Your task to perform on an android device: Search for Italian restaurants on Maps Image 0: 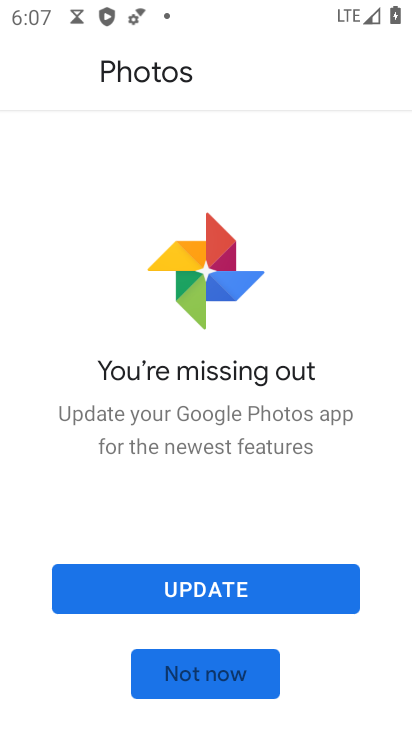
Step 0: press home button
Your task to perform on an android device: Search for Italian restaurants on Maps Image 1: 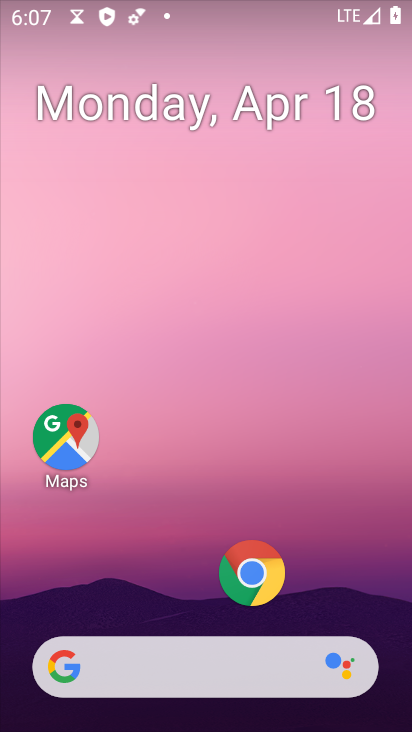
Step 1: click (67, 445)
Your task to perform on an android device: Search for Italian restaurants on Maps Image 2: 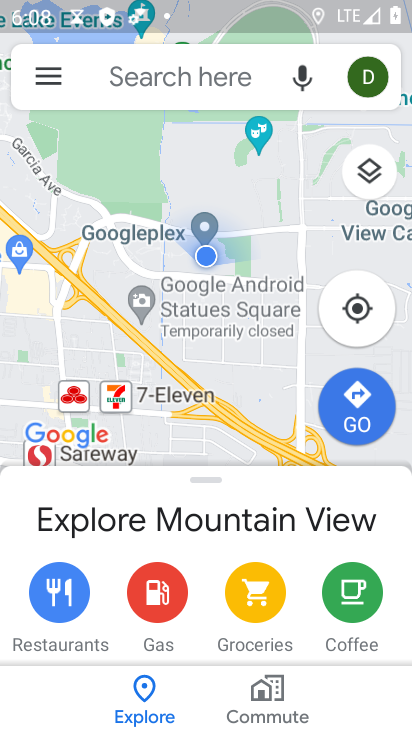
Step 2: click (208, 83)
Your task to perform on an android device: Search for Italian restaurants on Maps Image 3: 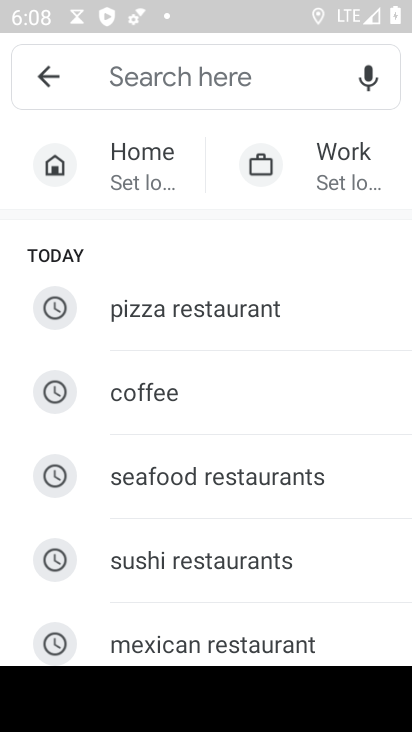
Step 3: type "italian restaurants"
Your task to perform on an android device: Search for Italian restaurants on Maps Image 4: 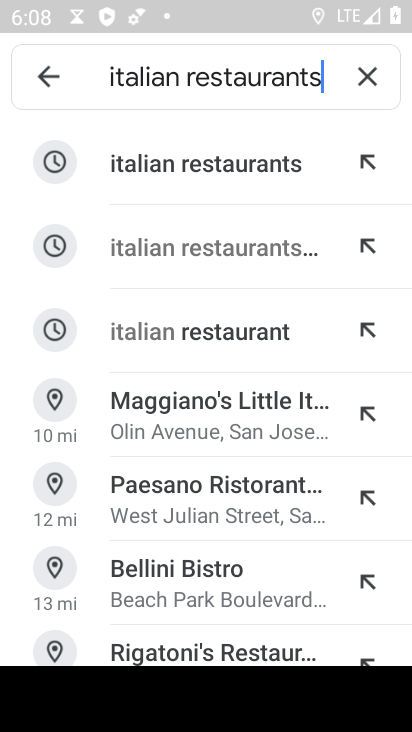
Step 4: click (221, 172)
Your task to perform on an android device: Search for Italian restaurants on Maps Image 5: 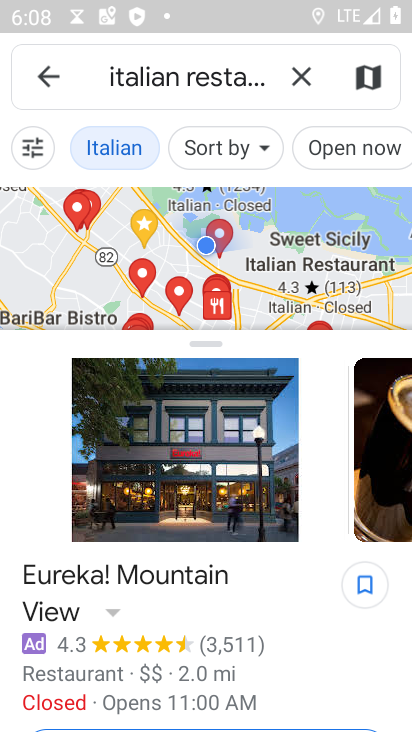
Step 5: task complete